Your task to perform on an android device: turn on bluetooth scan Image 0: 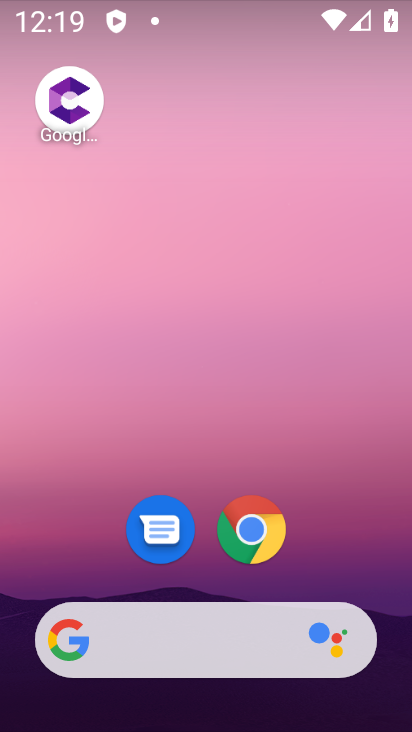
Step 0: drag from (228, 593) to (248, 130)
Your task to perform on an android device: turn on bluetooth scan Image 1: 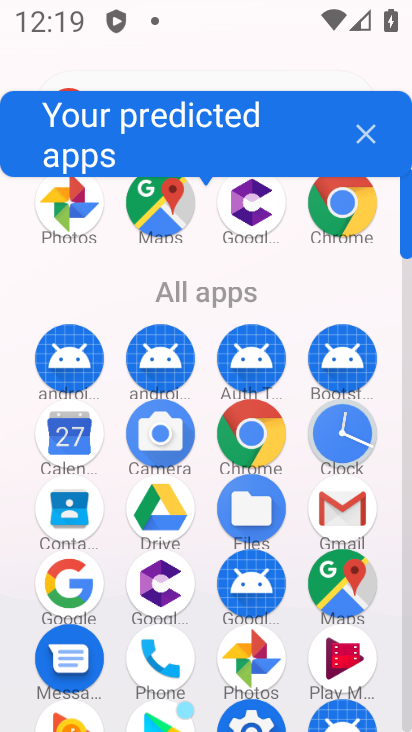
Step 1: click (247, 724)
Your task to perform on an android device: turn on bluetooth scan Image 2: 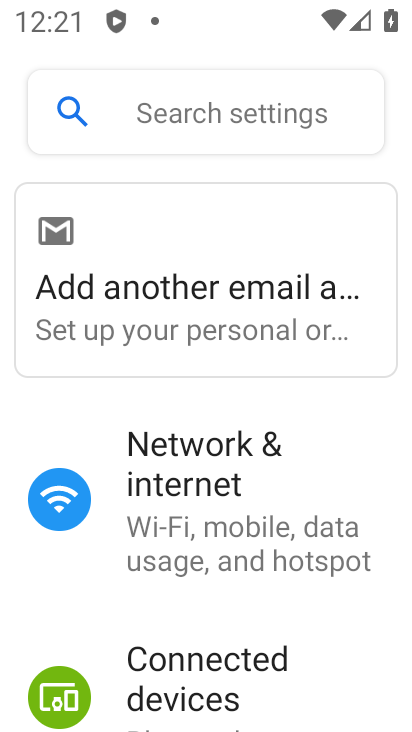
Step 2: drag from (252, 714) to (248, 198)
Your task to perform on an android device: turn on bluetooth scan Image 3: 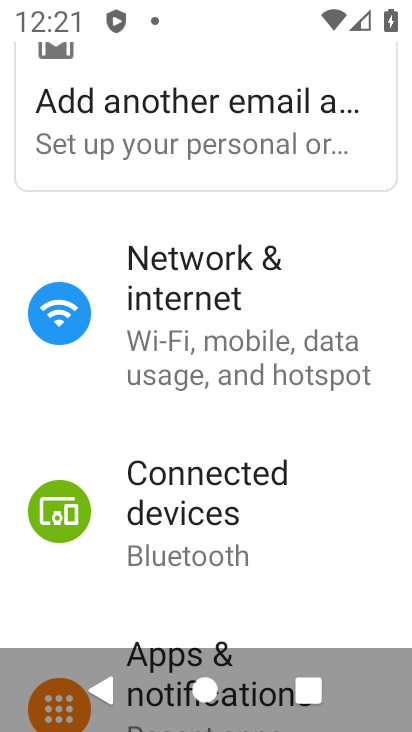
Step 3: drag from (256, 605) to (253, 217)
Your task to perform on an android device: turn on bluetooth scan Image 4: 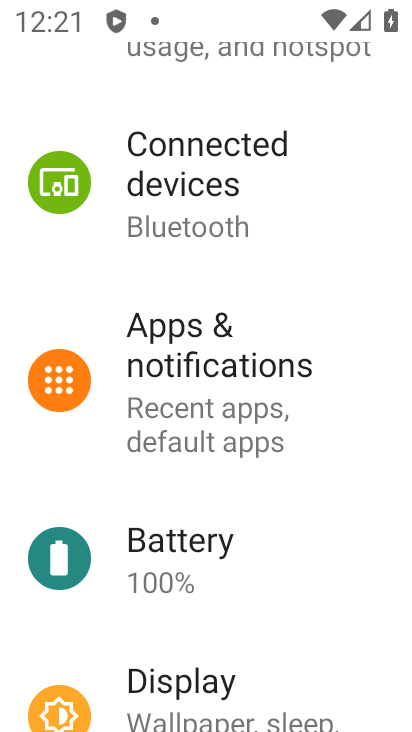
Step 4: drag from (226, 630) to (210, 223)
Your task to perform on an android device: turn on bluetooth scan Image 5: 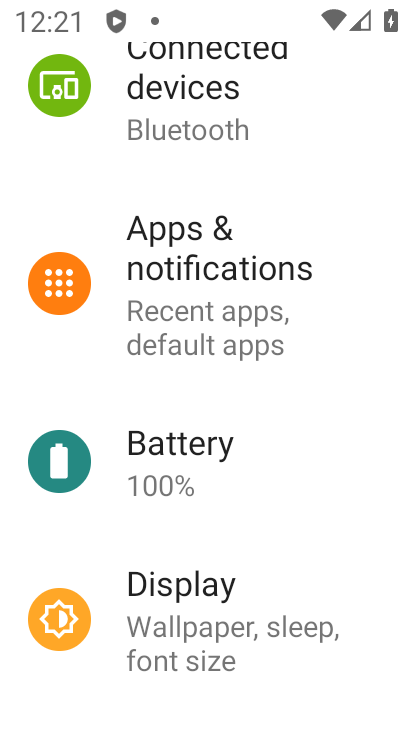
Step 5: drag from (272, 656) to (272, 198)
Your task to perform on an android device: turn on bluetooth scan Image 6: 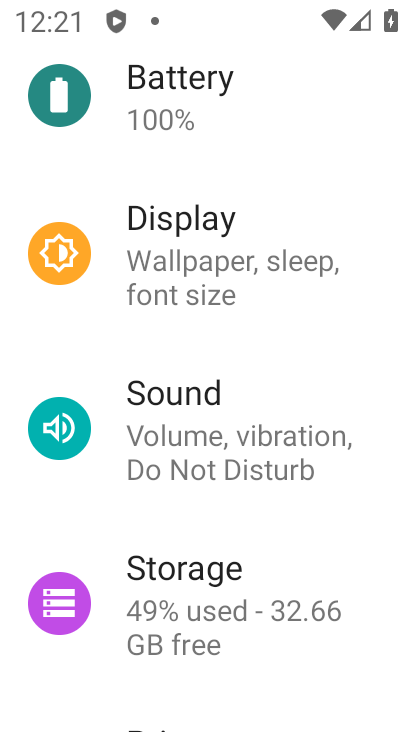
Step 6: drag from (257, 650) to (250, 203)
Your task to perform on an android device: turn on bluetooth scan Image 7: 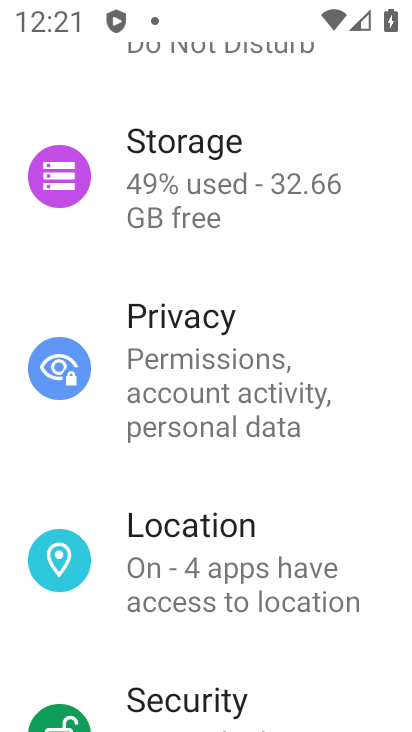
Step 7: drag from (236, 644) to (258, 199)
Your task to perform on an android device: turn on bluetooth scan Image 8: 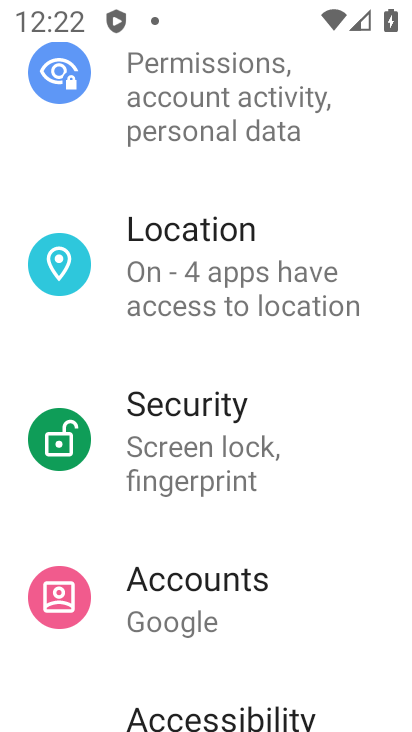
Step 8: click (245, 272)
Your task to perform on an android device: turn on bluetooth scan Image 9: 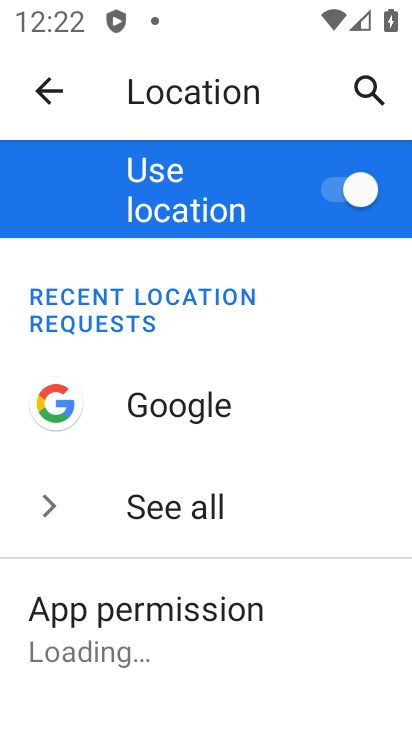
Step 9: drag from (203, 670) to (203, 302)
Your task to perform on an android device: turn on bluetooth scan Image 10: 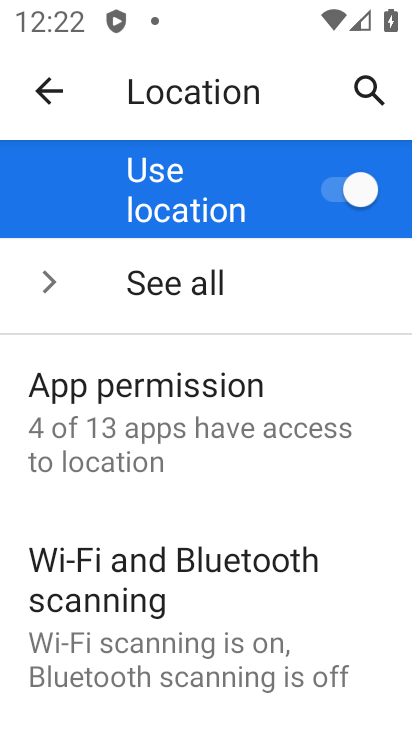
Step 10: click (154, 622)
Your task to perform on an android device: turn on bluetooth scan Image 11: 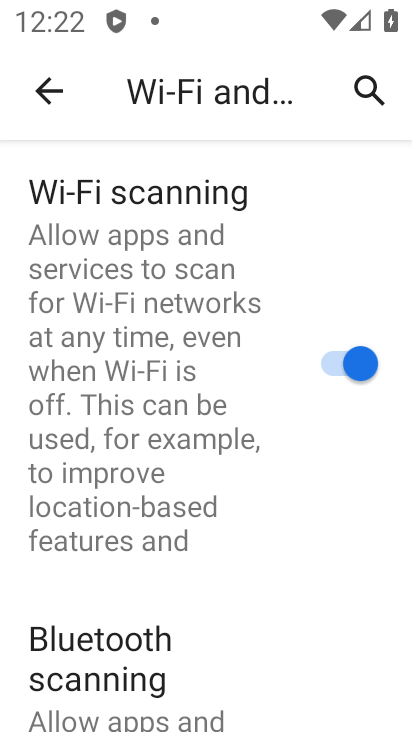
Step 11: drag from (335, 679) to (343, 342)
Your task to perform on an android device: turn on bluetooth scan Image 12: 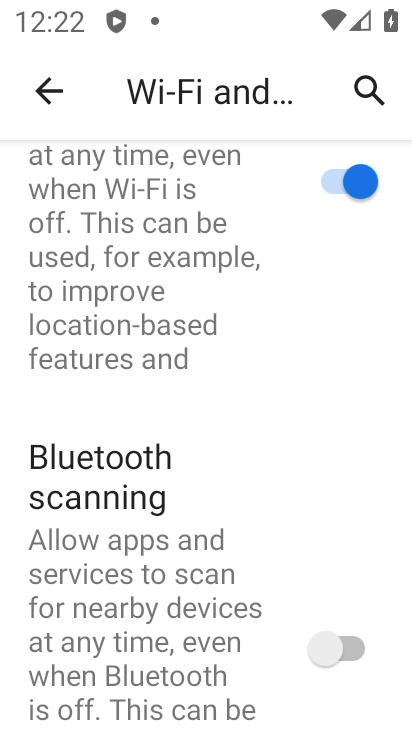
Step 12: click (345, 649)
Your task to perform on an android device: turn on bluetooth scan Image 13: 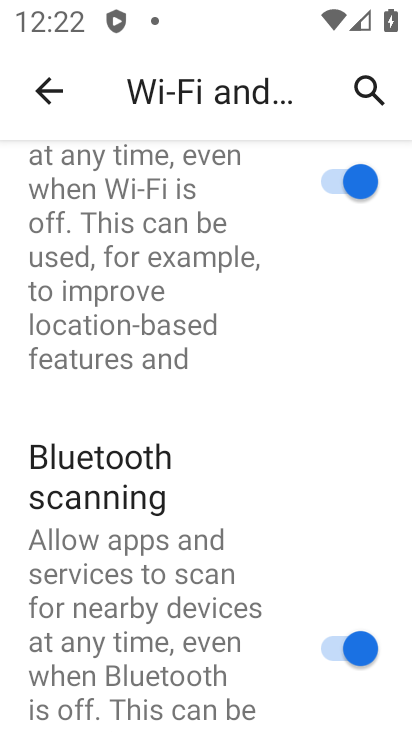
Step 13: task complete